Your task to perform on an android device: turn notification dots on Image 0: 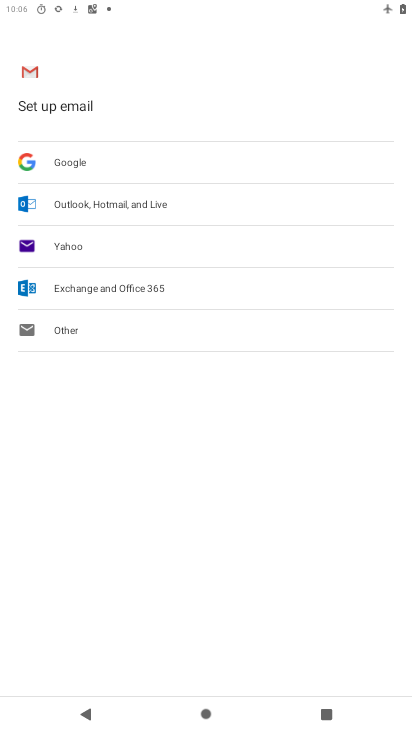
Step 0: press home button
Your task to perform on an android device: turn notification dots on Image 1: 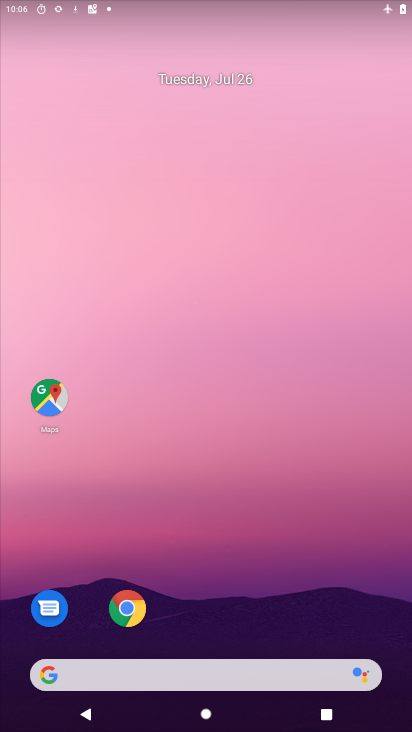
Step 1: drag from (234, 595) to (207, 156)
Your task to perform on an android device: turn notification dots on Image 2: 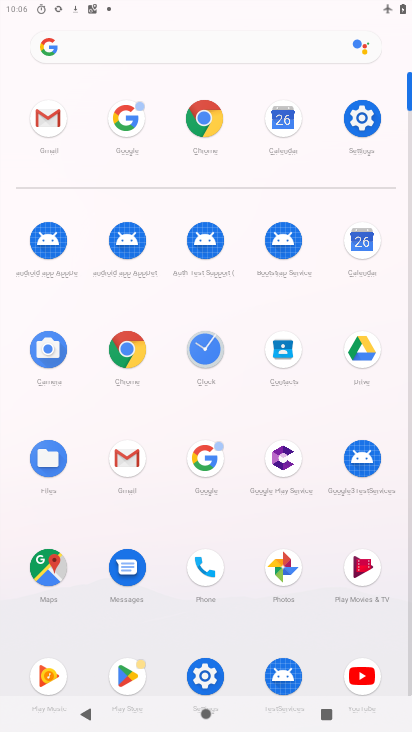
Step 2: click (349, 102)
Your task to perform on an android device: turn notification dots on Image 3: 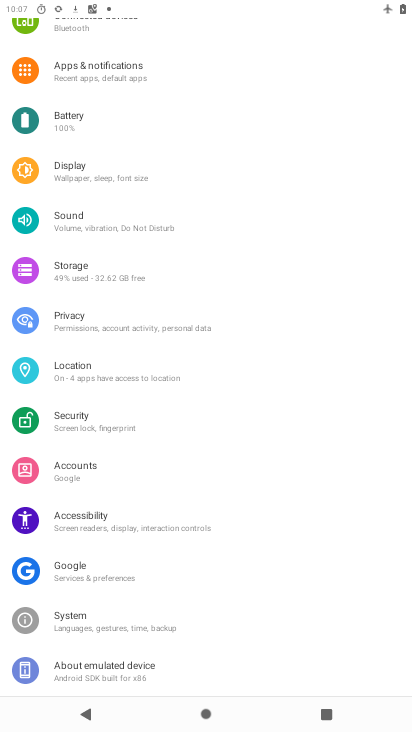
Step 3: drag from (161, 178) to (161, 378)
Your task to perform on an android device: turn notification dots on Image 4: 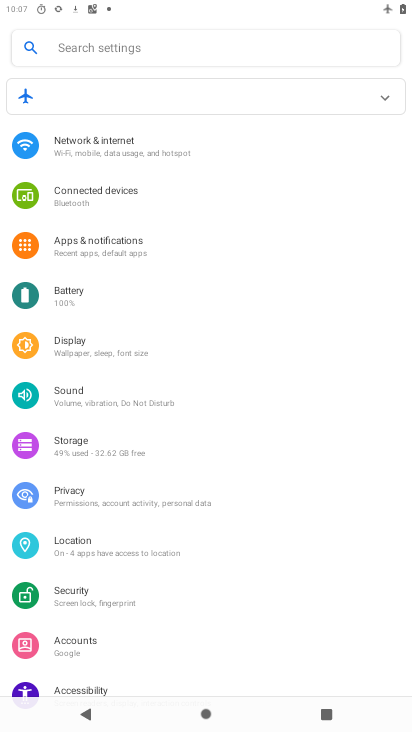
Step 4: click (172, 253)
Your task to perform on an android device: turn notification dots on Image 5: 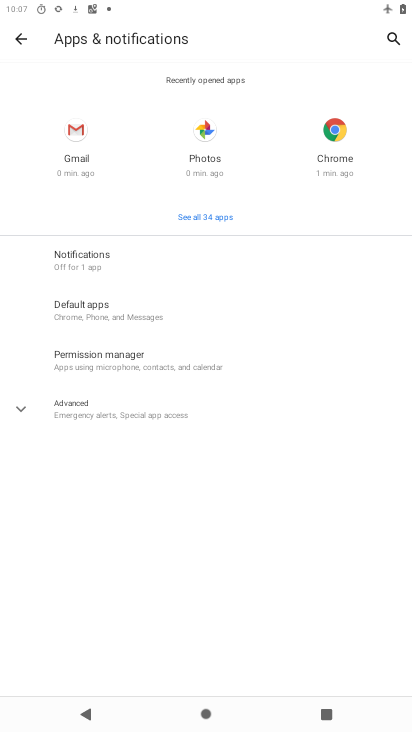
Step 5: click (164, 261)
Your task to perform on an android device: turn notification dots on Image 6: 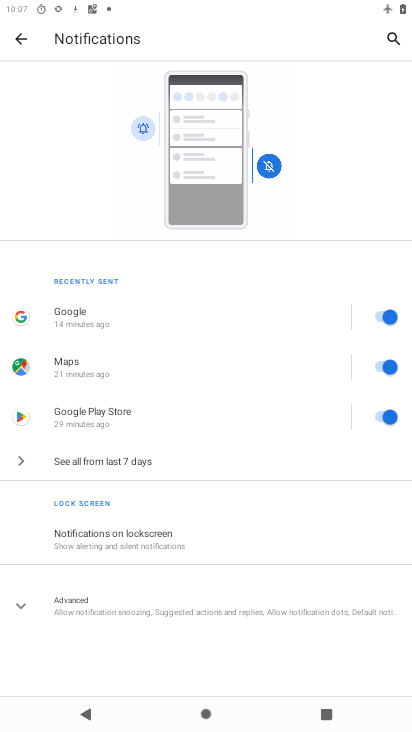
Step 6: click (114, 615)
Your task to perform on an android device: turn notification dots on Image 7: 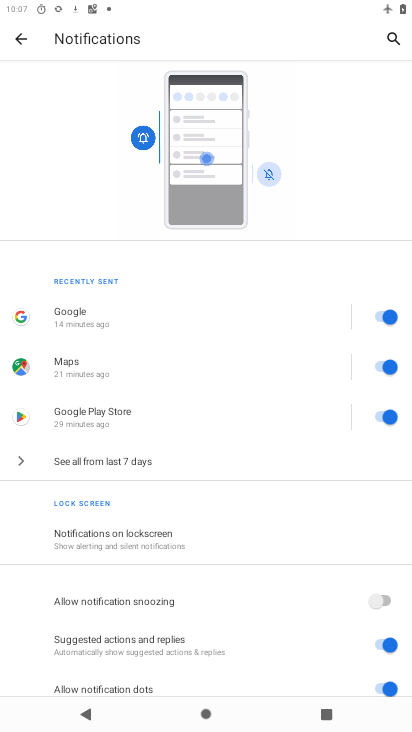
Step 7: task complete